Your task to perform on an android device: Open network settings Image 0: 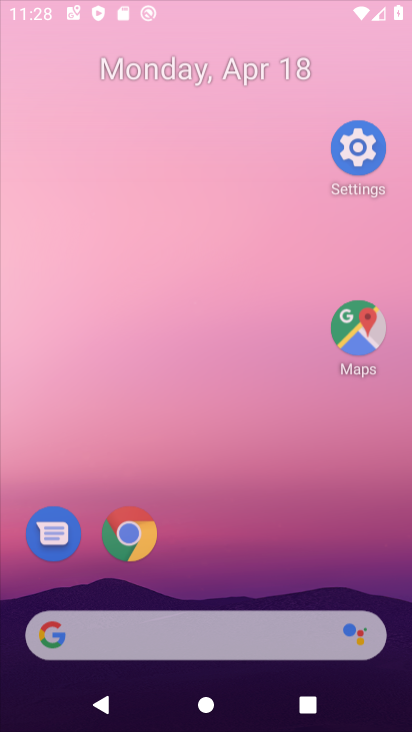
Step 0: click (380, 54)
Your task to perform on an android device: Open network settings Image 1: 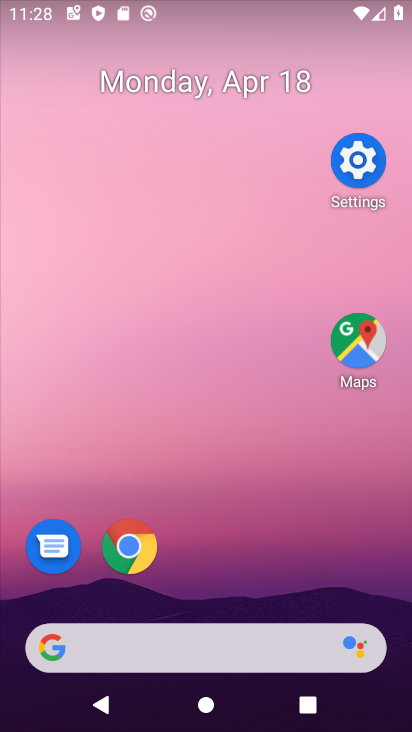
Step 1: drag from (254, 663) to (231, 277)
Your task to perform on an android device: Open network settings Image 2: 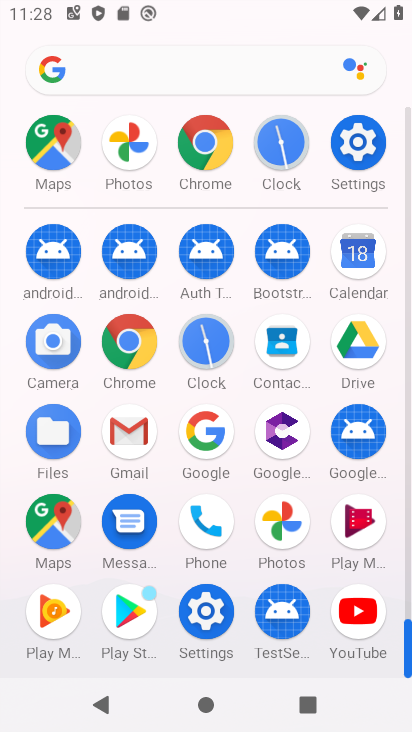
Step 2: click (355, 146)
Your task to perform on an android device: Open network settings Image 3: 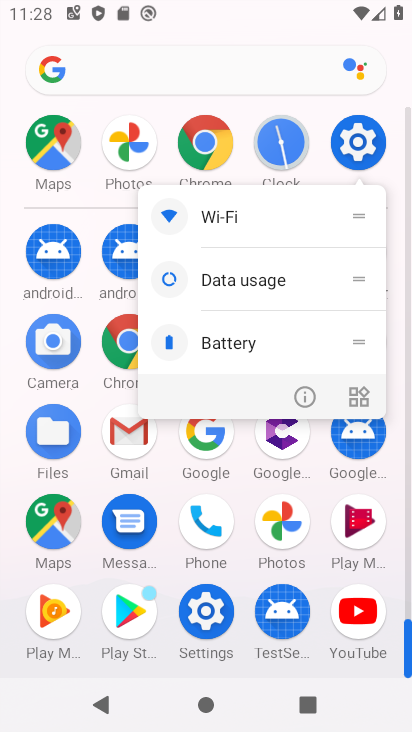
Step 3: click (355, 146)
Your task to perform on an android device: Open network settings Image 4: 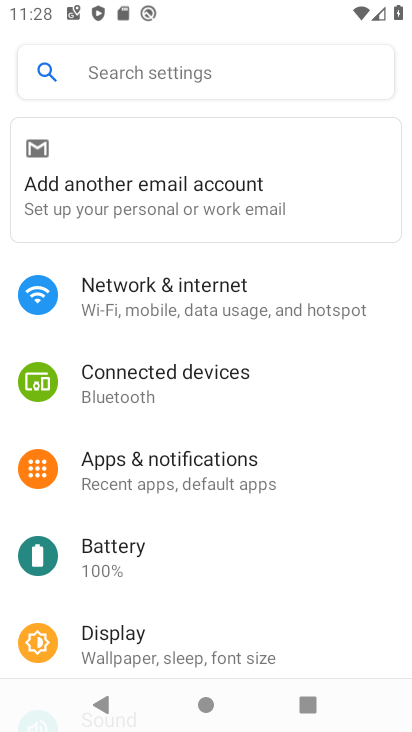
Step 4: click (164, 299)
Your task to perform on an android device: Open network settings Image 5: 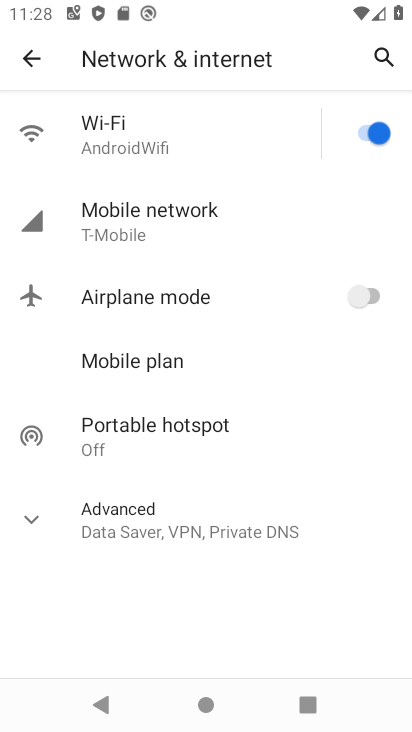
Step 5: task complete